Your task to perform on an android device: Open maps Image 0: 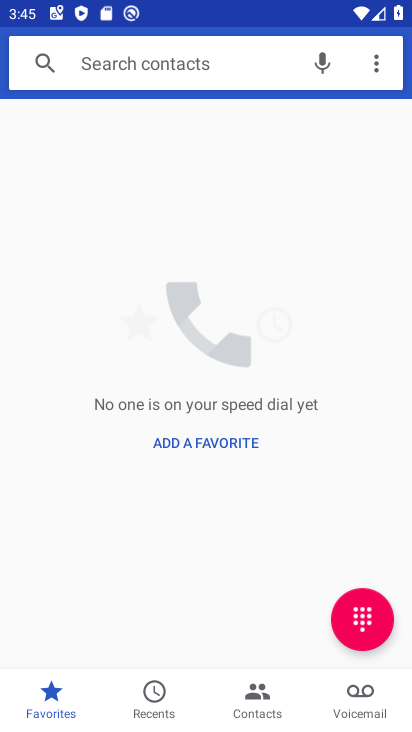
Step 0: press home button
Your task to perform on an android device: Open maps Image 1: 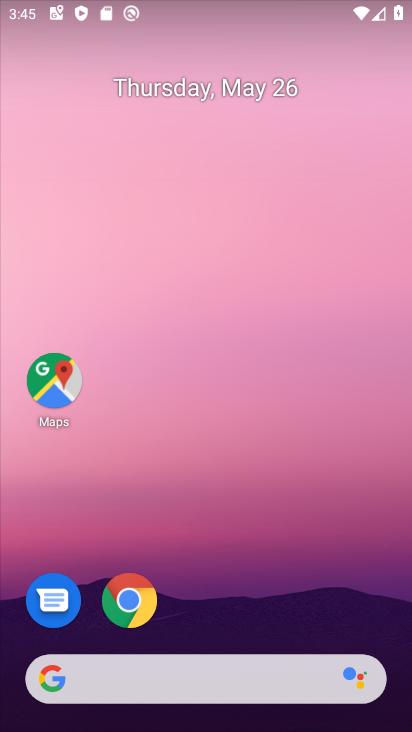
Step 1: click (43, 378)
Your task to perform on an android device: Open maps Image 2: 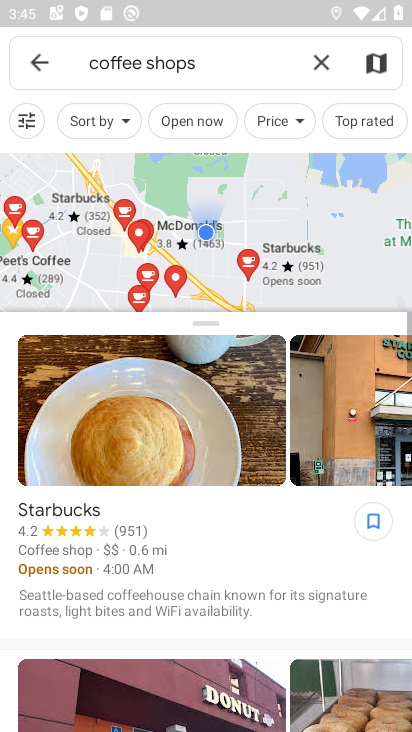
Step 2: click (37, 38)
Your task to perform on an android device: Open maps Image 3: 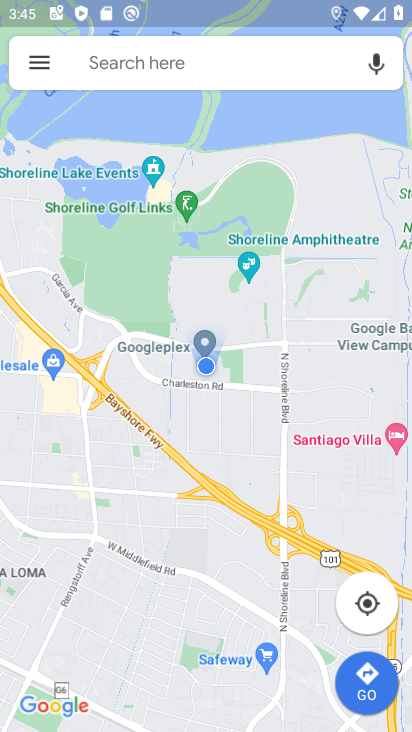
Step 3: task complete